Your task to perform on an android device: Open Google Chrome Image 0: 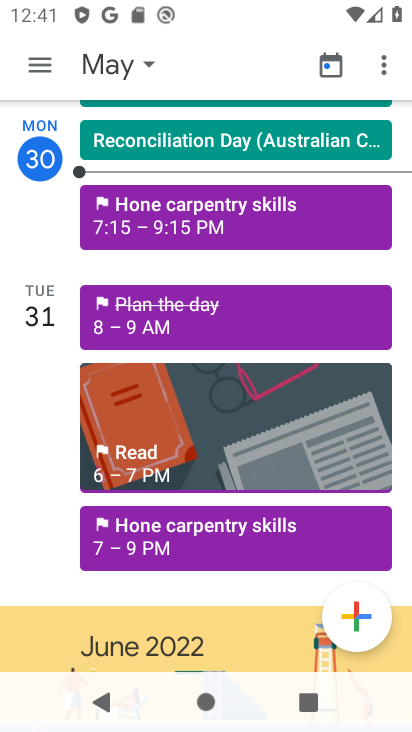
Step 0: press home button
Your task to perform on an android device: Open Google Chrome Image 1: 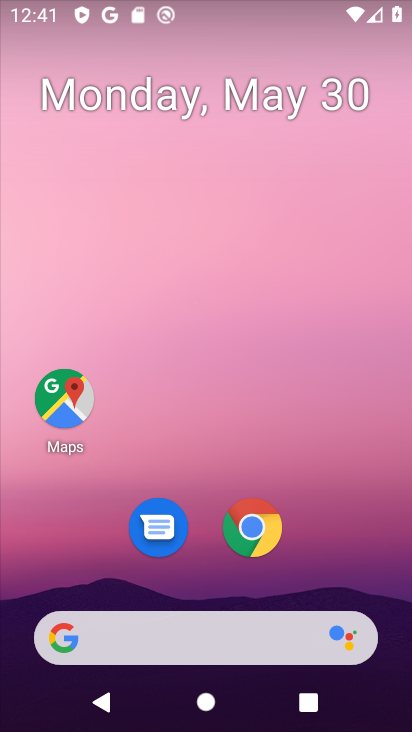
Step 1: drag from (342, 574) to (291, 116)
Your task to perform on an android device: Open Google Chrome Image 2: 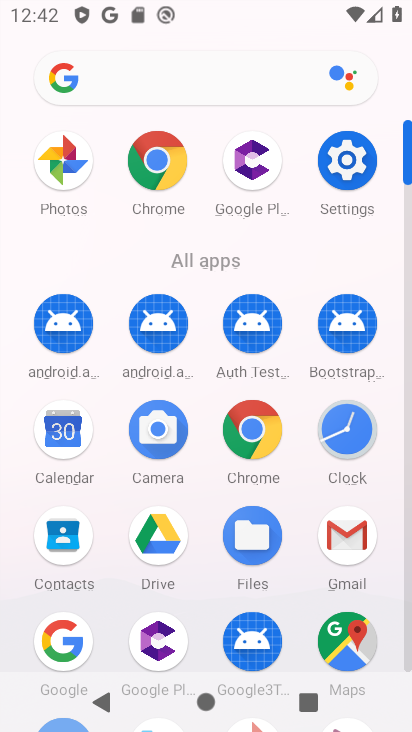
Step 2: click (163, 155)
Your task to perform on an android device: Open Google Chrome Image 3: 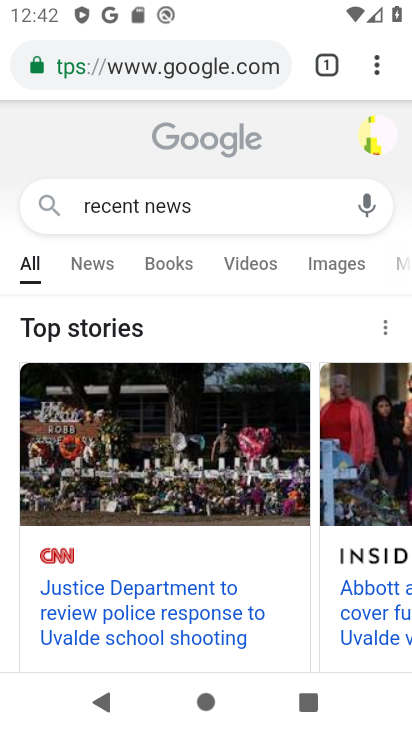
Step 3: task complete